Your task to perform on an android device: find snoozed emails in the gmail app Image 0: 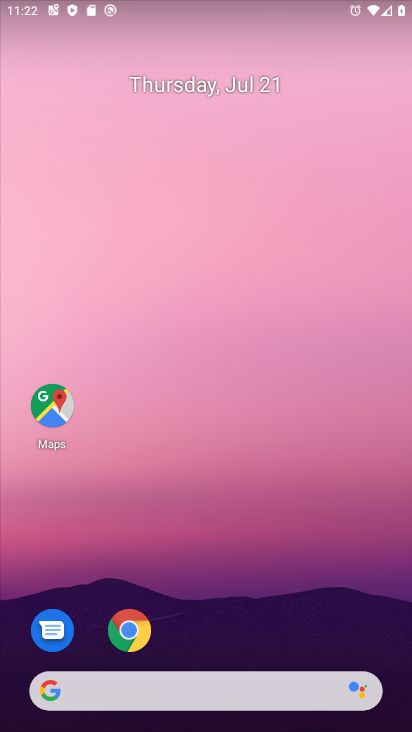
Step 0: drag from (225, 654) to (202, 22)
Your task to perform on an android device: find snoozed emails in the gmail app Image 1: 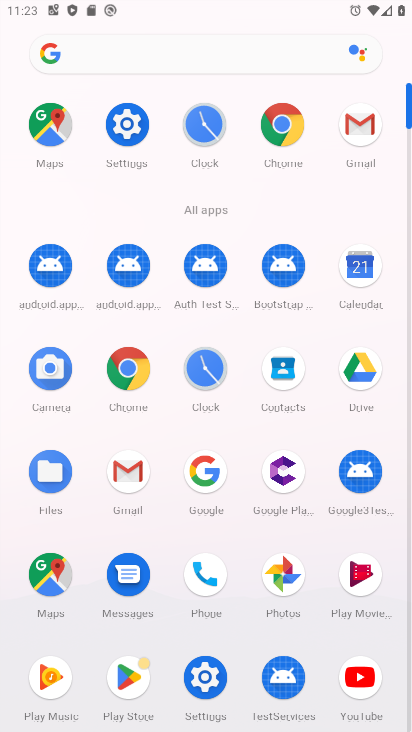
Step 1: click (115, 478)
Your task to perform on an android device: find snoozed emails in the gmail app Image 2: 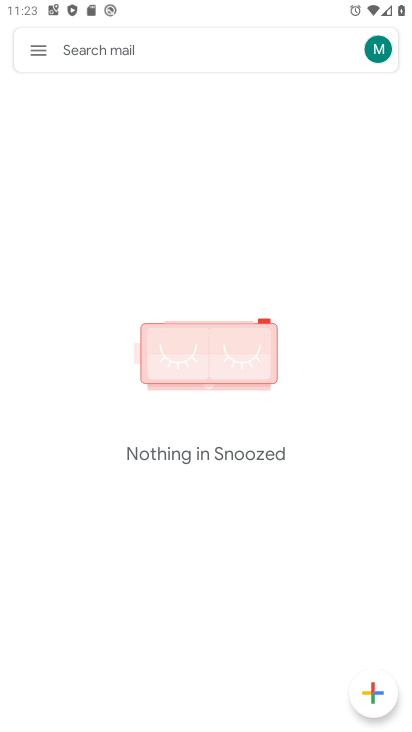
Step 2: click (41, 36)
Your task to perform on an android device: find snoozed emails in the gmail app Image 3: 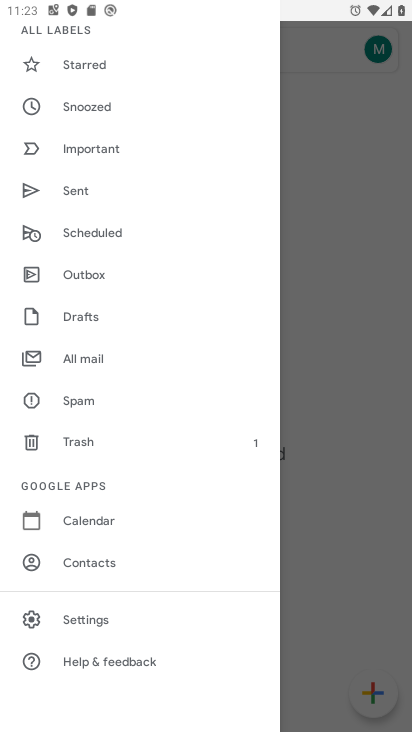
Step 3: task complete